Your task to perform on an android device: Open Chrome and go to settings Image 0: 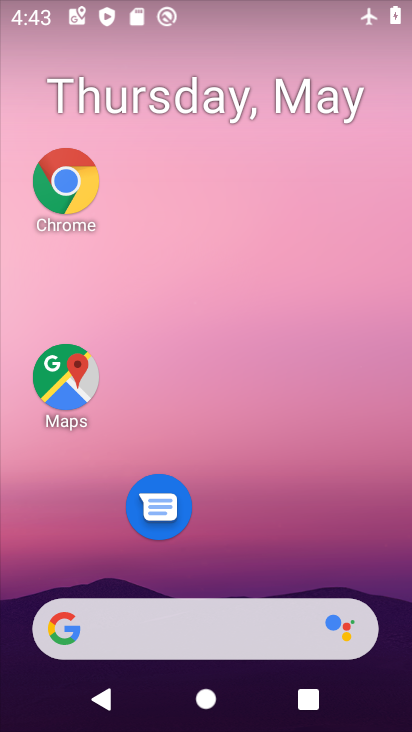
Step 0: drag from (345, 604) to (163, 248)
Your task to perform on an android device: Open Chrome and go to settings Image 1: 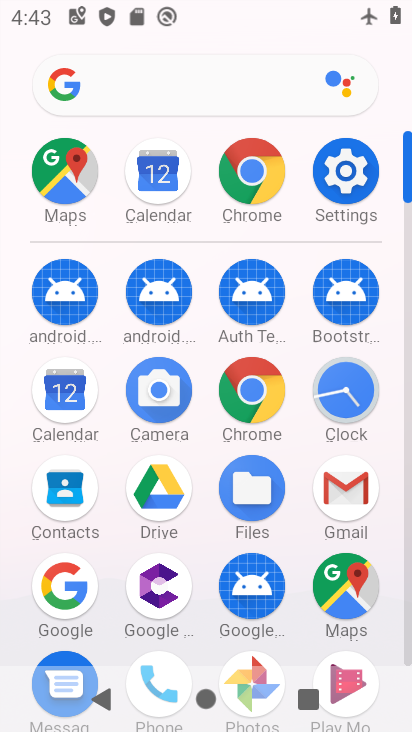
Step 1: click (328, 174)
Your task to perform on an android device: Open Chrome and go to settings Image 2: 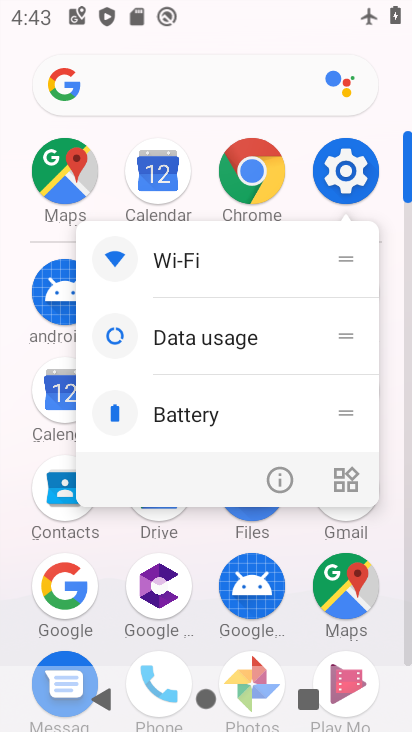
Step 2: click (240, 168)
Your task to perform on an android device: Open Chrome and go to settings Image 3: 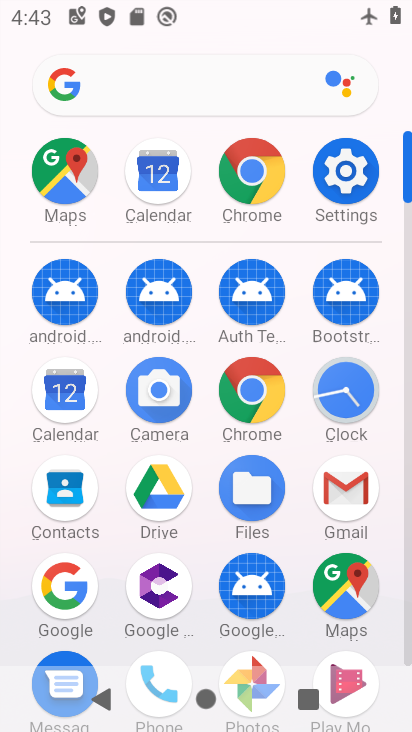
Step 3: click (246, 170)
Your task to perform on an android device: Open Chrome and go to settings Image 4: 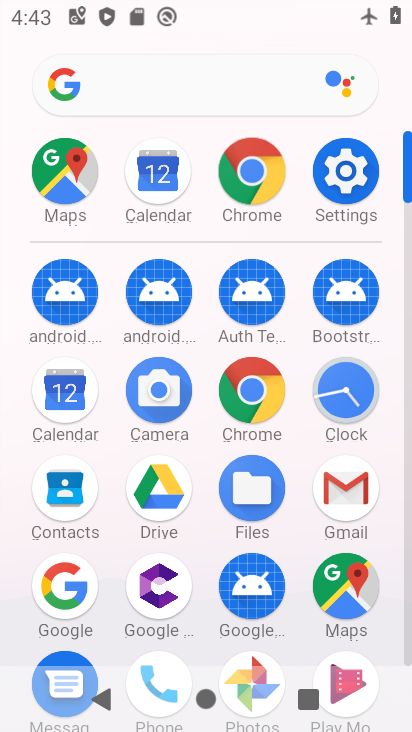
Step 4: click (248, 171)
Your task to perform on an android device: Open Chrome and go to settings Image 5: 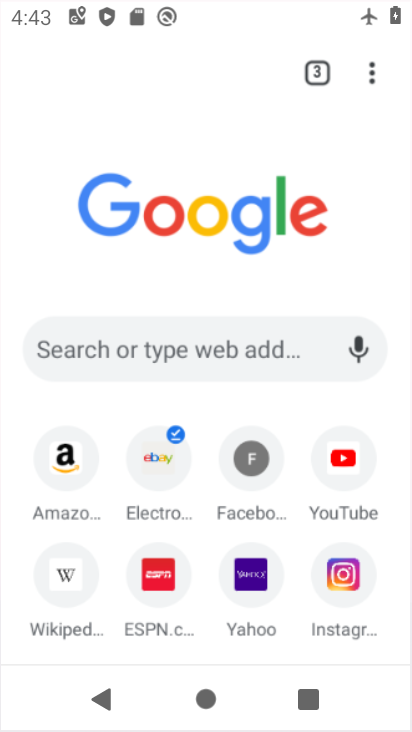
Step 5: click (252, 172)
Your task to perform on an android device: Open Chrome and go to settings Image 6: 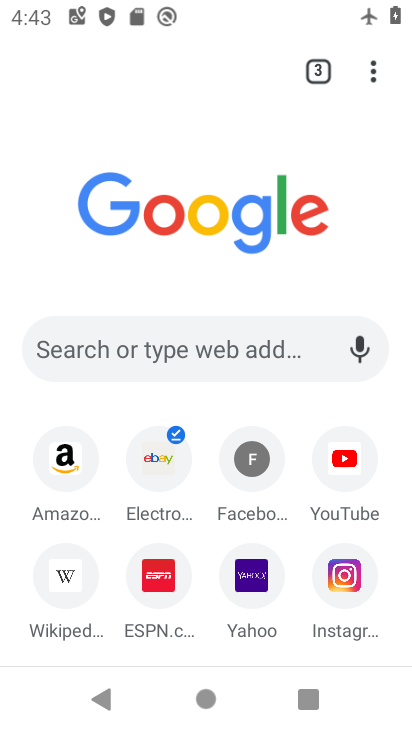
Step 6: drag from (367, 83) to (119, 498)
Your task to perform on an android device: Open Chrome and go to settings Image 7: 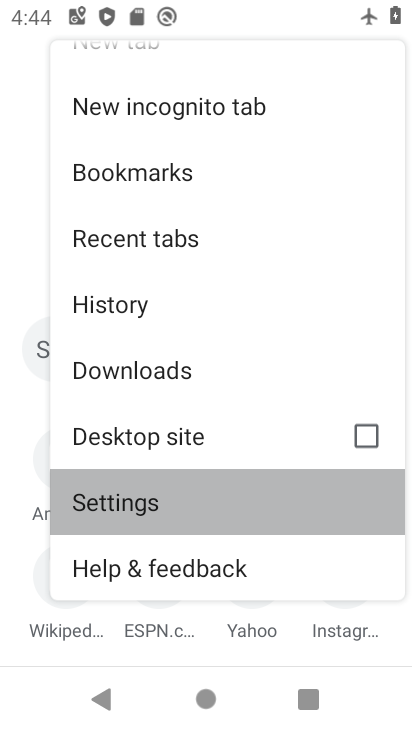
Step 7: click (119, 499)
Your task to perform on an android device: Open Chrome and go to settings Image 8: 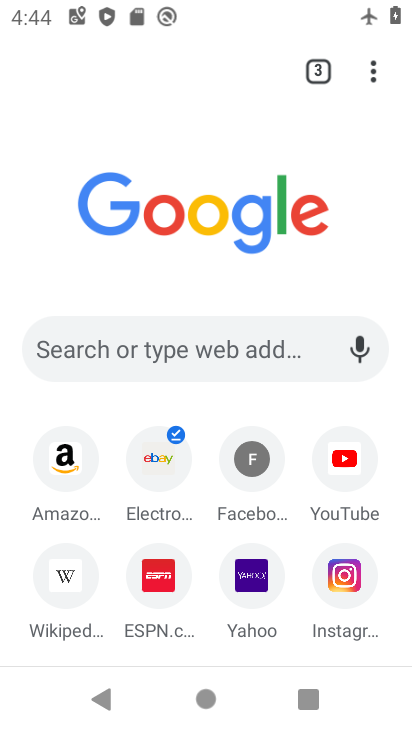
Step 8: click (123, 500)
Your task to perform on an android device: Open Chrome and go to settings Image 9: 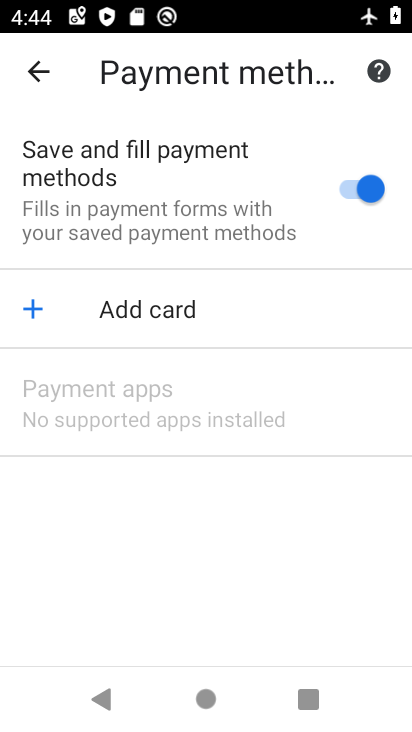
Step 9: click (36, 72)
Your task to perform on an android device: Open Chrome and go to settings Image 10: 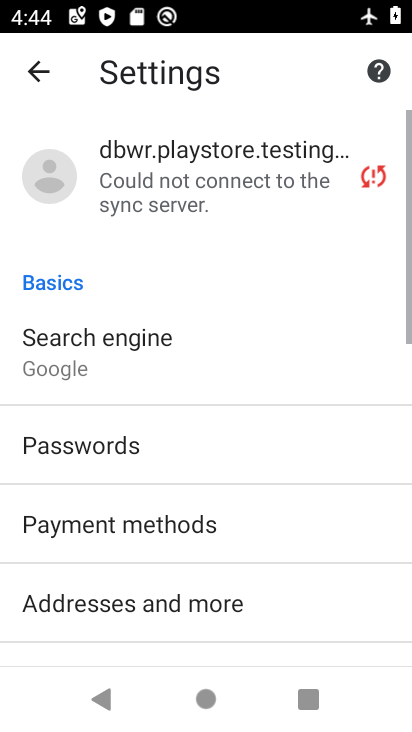
Step 10: task complete